Your task to perform on an android device: toggle show notifications on the lock screen Image 0: 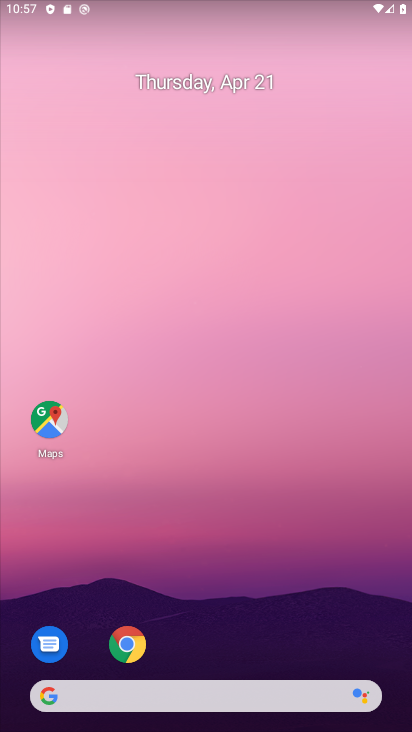
Step 0: drag from (320, 600) to (273, 220)
Your task to perform on an android device: toggle show notifications on the lock screen Image 1: 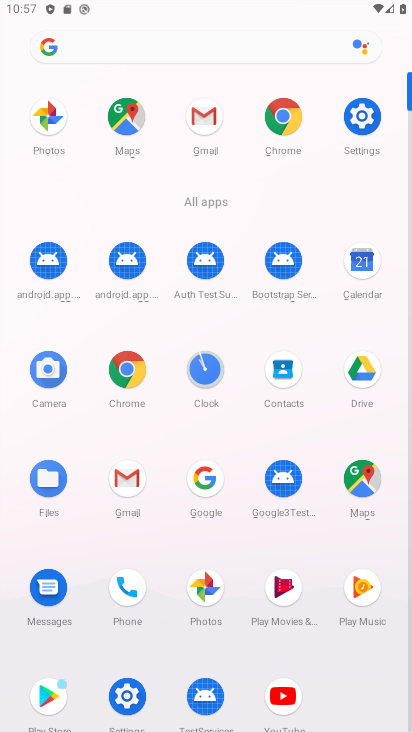
Step 1: click (366, 127)
Your task to perform on an android device: toggle show notifications on the lock screen Image 2: 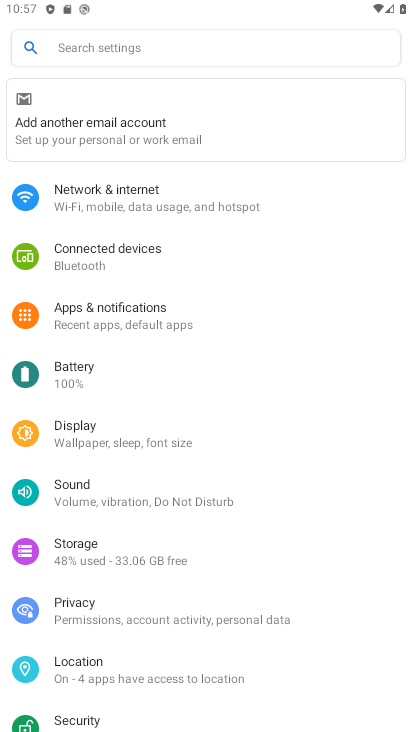
Step 2: click (273, 327)
Your task to perform on an android device: toggle show notifications on the lock screen Image 3: 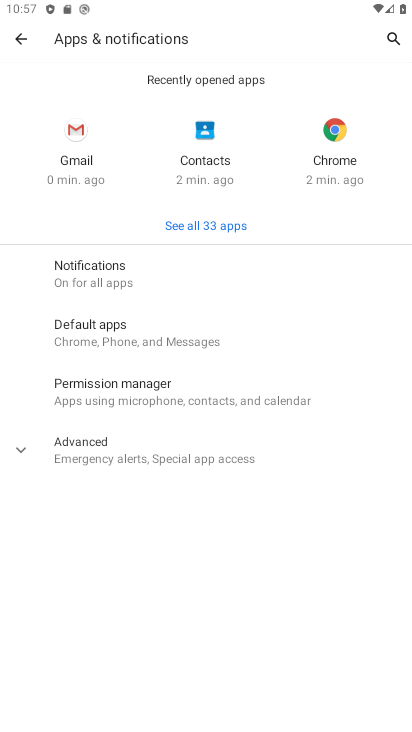
Step 3: click (241, 291)
Your task to perform on an android device: toggle show notifications on the lock screen Image 4: 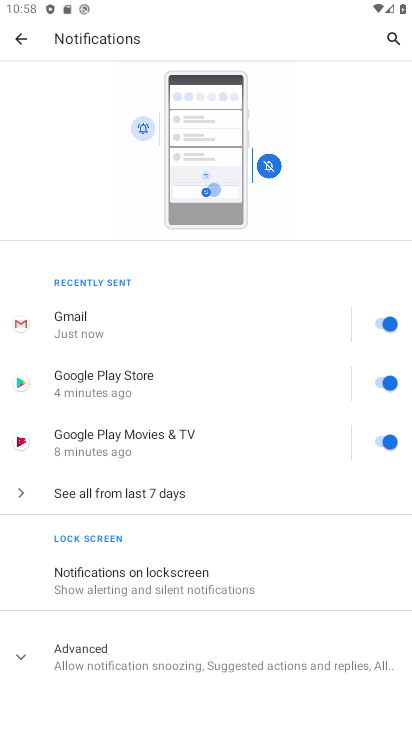
Step 4: click (231, 582)
Your task to perform on an android device: toggle show notifications on the lock screen Image 5: 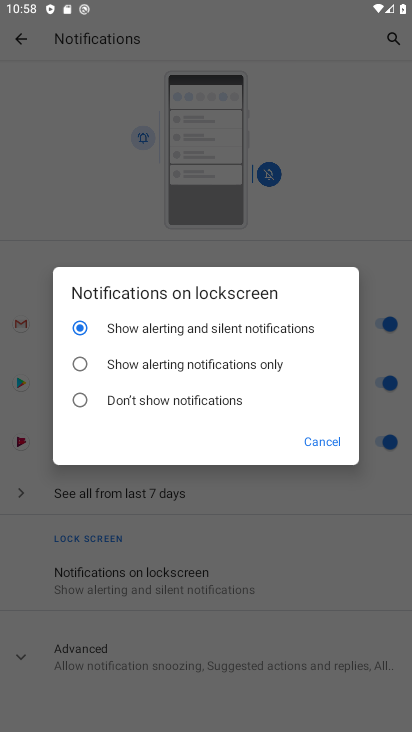
Step 5: click (224, 364)
Your task to perform on an android device: toggle show notifications on the lock screen Image 6: 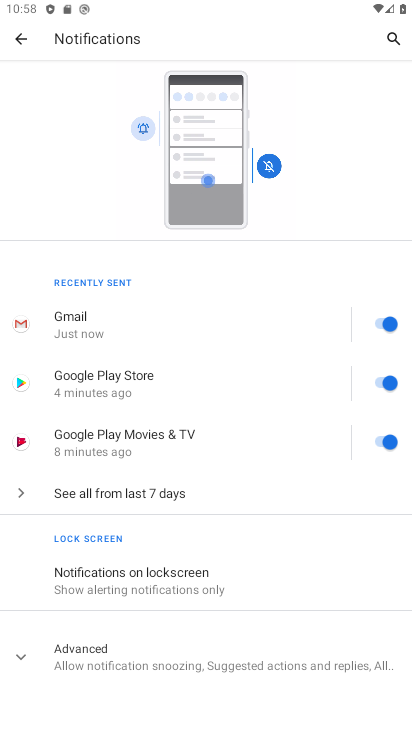
Step 6: task complete